Your task to perform on an android device: turn on airplane mode Image 0: 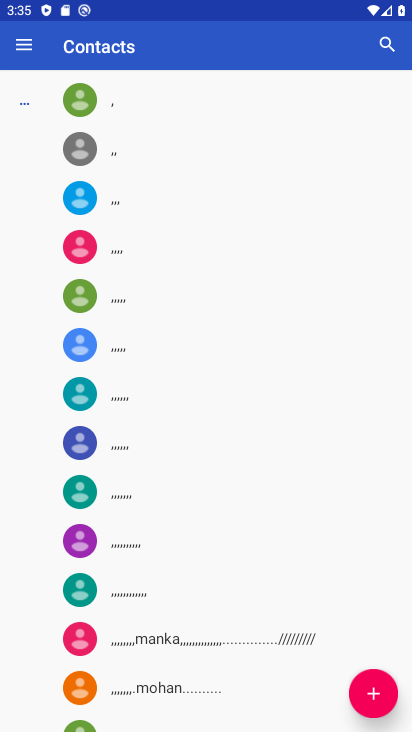
Step 0: press home button
Your task to perform on an android device: turn on airplane mode Image 1: 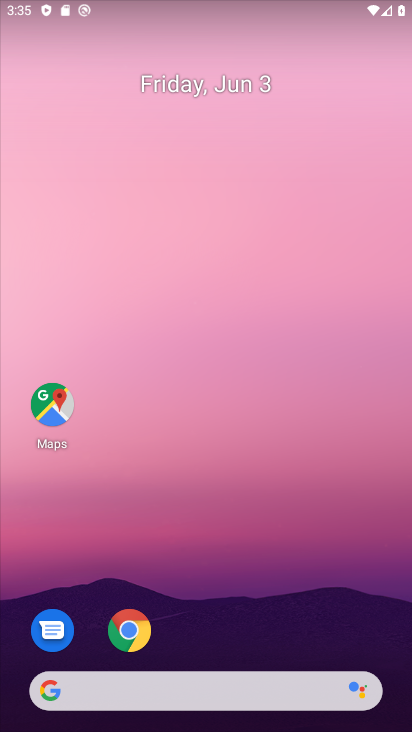
Step 1: drag from (296, 3) to (298, 383)
Your task to perform on an android device: turn on airplane mode Image 2: 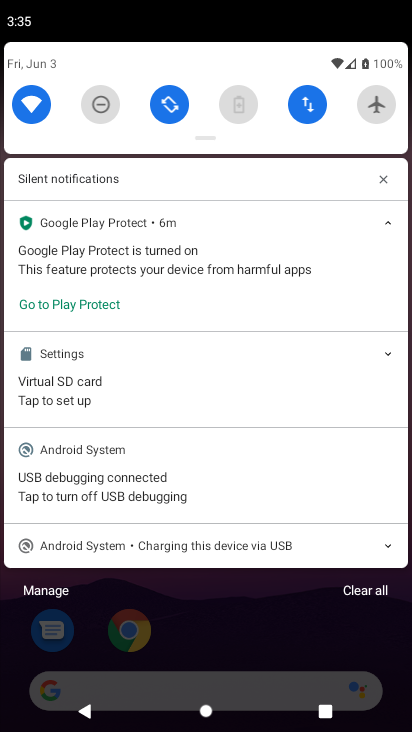
Step 2: click (376, 104)
Your task to perform on an android device: turn on airplane mode Image 3: 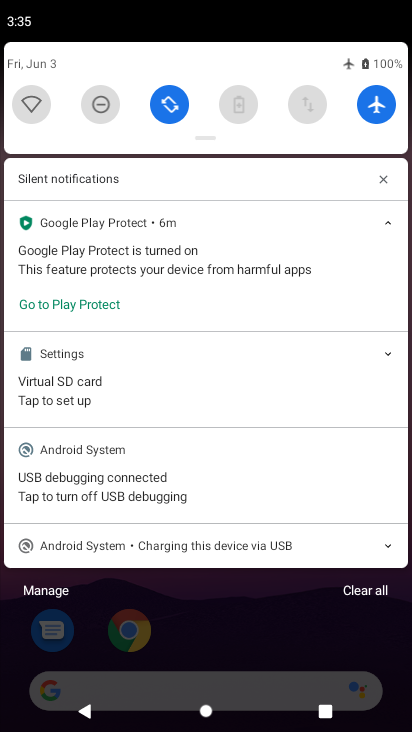
Step 3: task complete